Your task to perform on an android device: turn on translation in the chrome app Image 0: 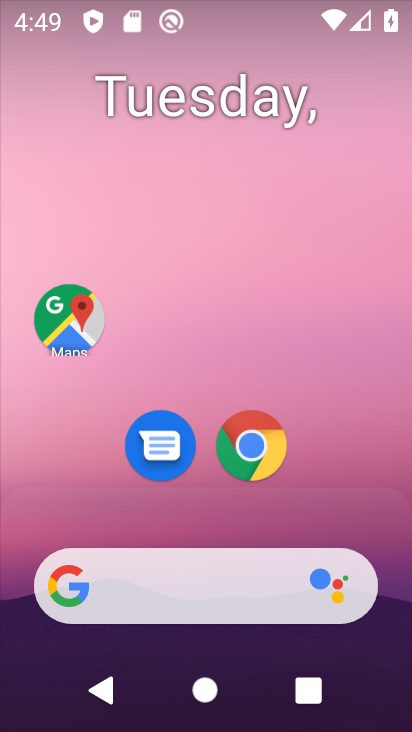
Step 0: drag from (307, 479) to (352, 86)
Your task to perform on an android device: turn on translation in the chrome app Image 1: 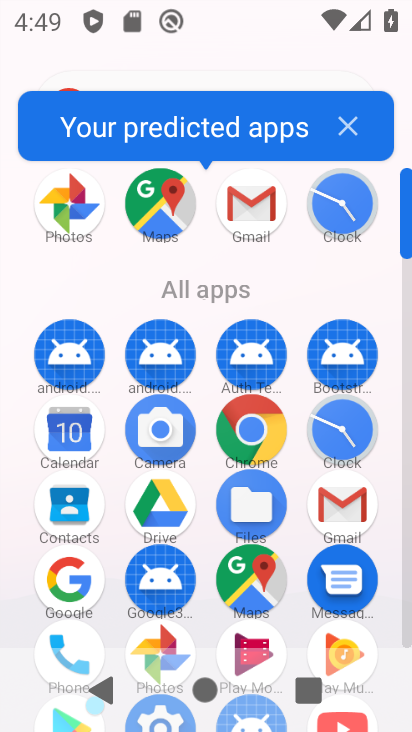
Step 1: click (250, 422)
Your task to perform on an android device: turn on translation in the chrome app Image 2: 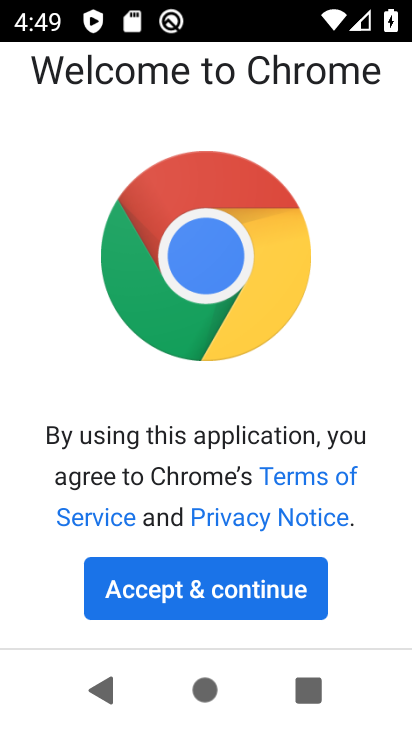
Step 2: click (252, 592)
Your task to perform on an android device: turn on translation in the chrome app Image 3: 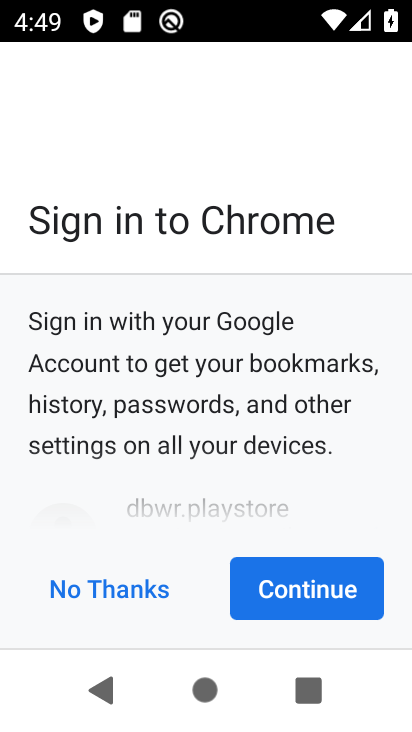
Step 3: click (276, 581)
Your task to perform on an android device: turn on translation in the chrome app Image 4: 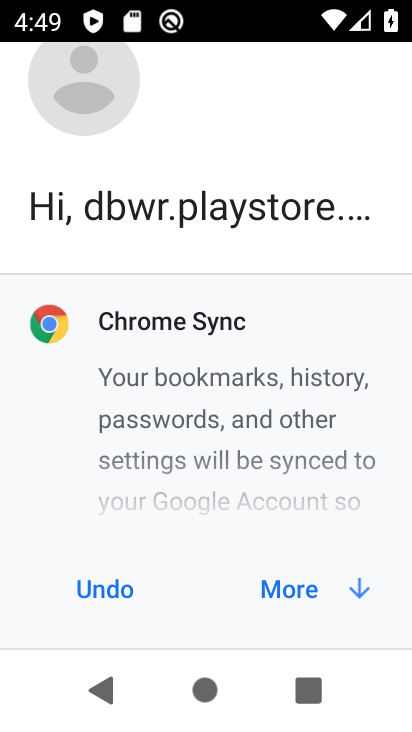
Step 4: click (306, 578)
Your task to perform on an android device: turn on translation in the chrome app Image 5: 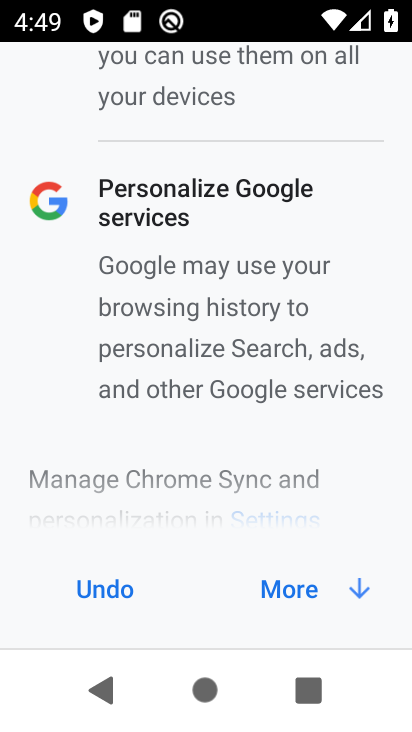
Step 5: click (323, 586)
Your task to perform on an android device: turn on translation in the chrome app Image 6: 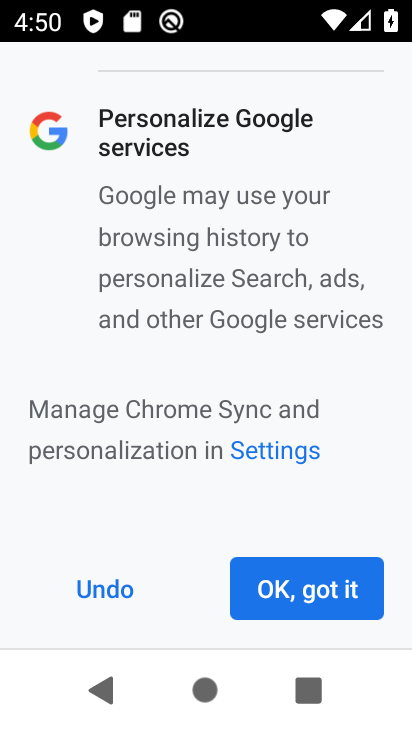
Step 6: click (328, 586)
Your task to perform on an android device: turn on translation in the chrome app Image 7: 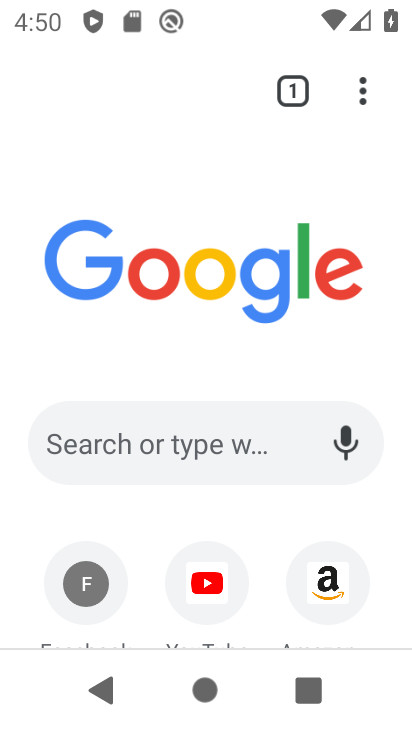
Step 7: drag from (364, 87) to (119, 463)
Your task to perform on an android device: turn on translation in the chrome app Image 8: 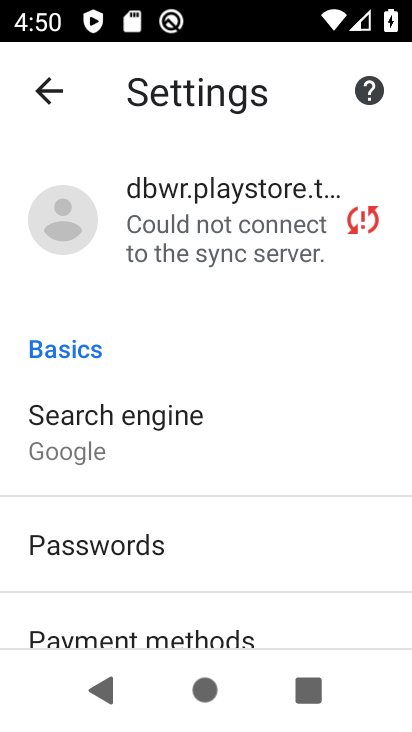
Step 8: drag from (293, 558) to (332, 272)
Your task to perform on an android device: turn on translation in the chrome app Image 9: 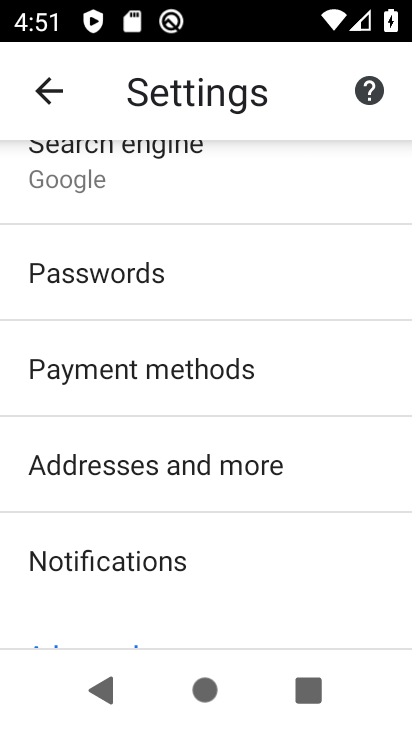
Step 9: drag from (312, 526) to (334, 213)
Your task to perform on an android device: turn on translation in the chrome app Image 10: 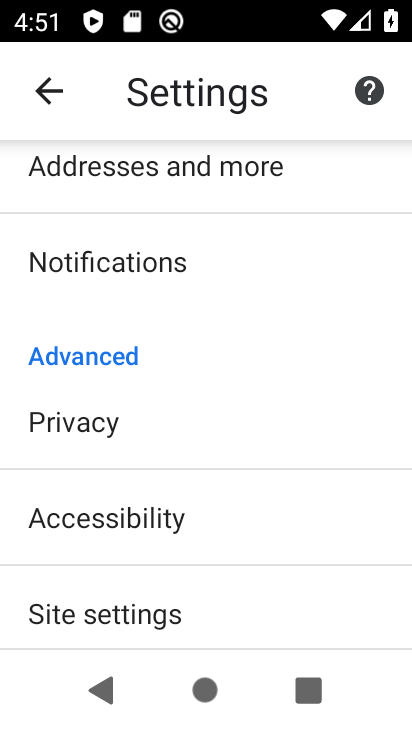
Step 10: drag from (172, 577) to (326, 255)
Your task to perform on an android device: turn on translation in the chrome app Image 11: 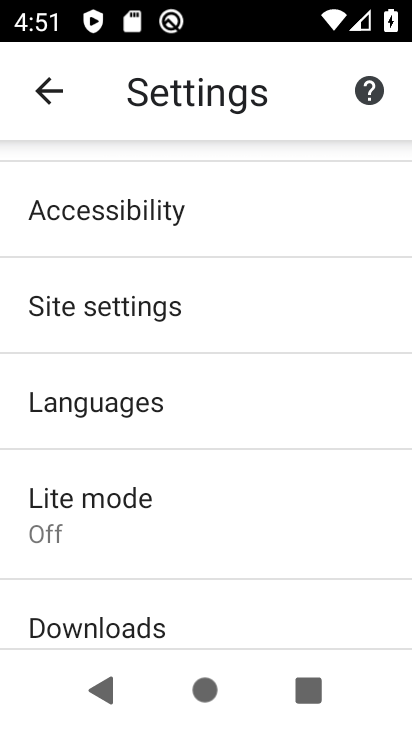
Step 11: click (124, 406)
Your task to perform on an android device: turn on translation in the chrome app Image 12: 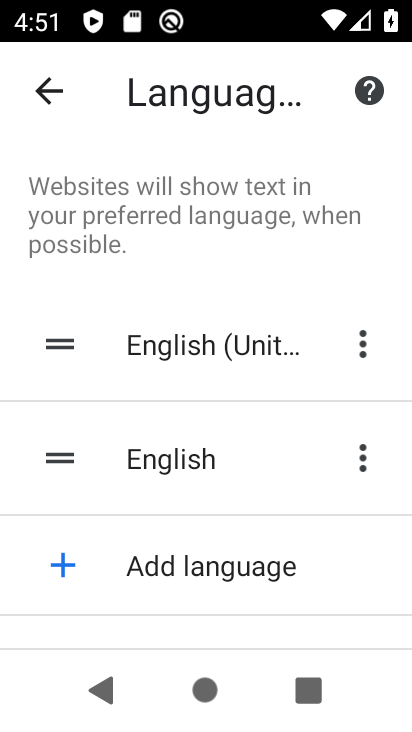
Step 12: task complete